Your task to perform on an android device: stop showing notifications on the lock screen Image 0: 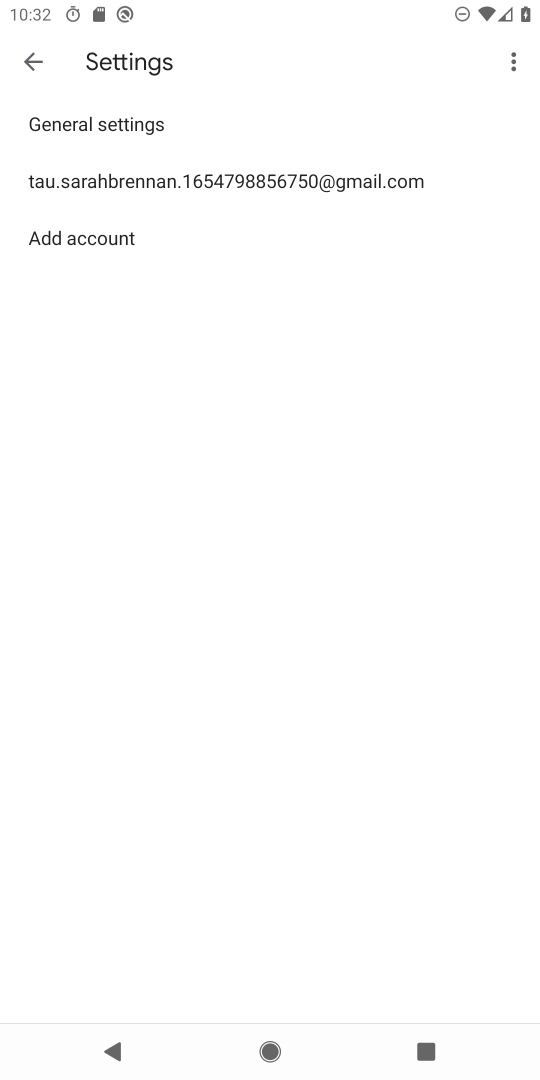
Step 0: press home button
Your task to perform on an android device: stop showing notifications on the lock screen Image 1: 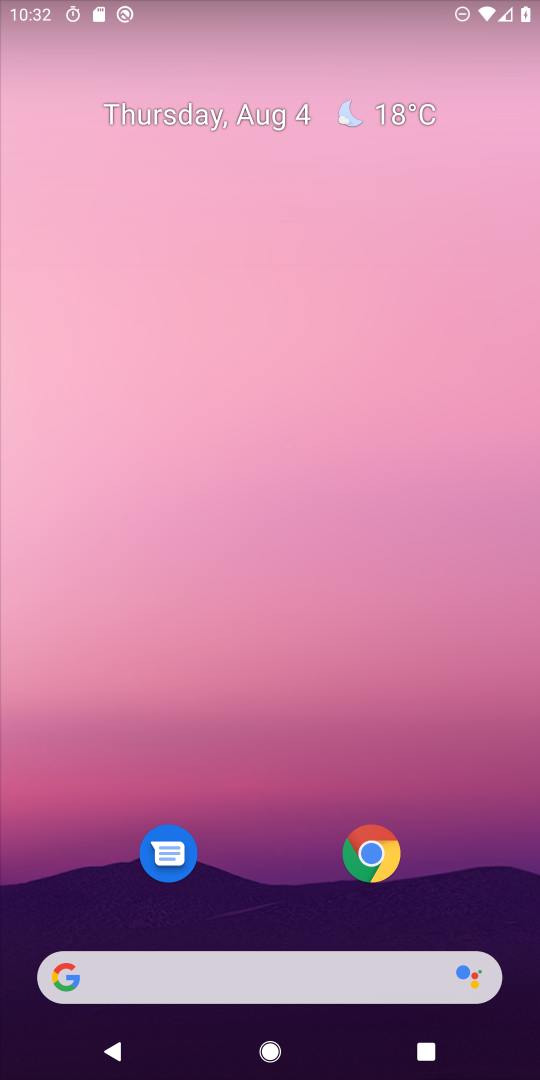
Step 1: drag from (269, 890) to (269, 91)
Your task to perform on an android device: stop showing notifications on the lock screen Image 2: 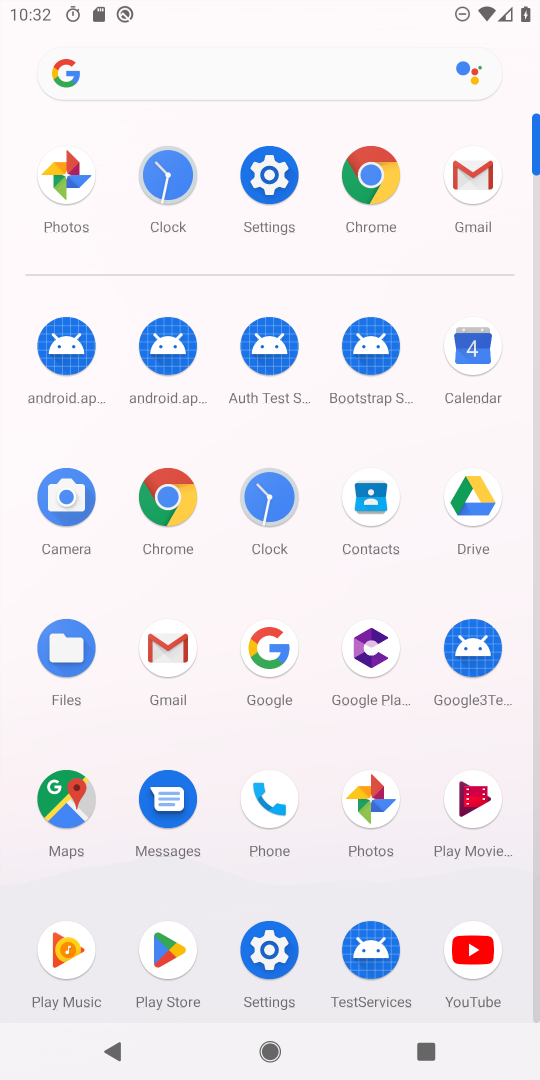
Step 2: click (271, 968)
Your task to perform on an android device: stop showing notifications on the lock screen Image 3: 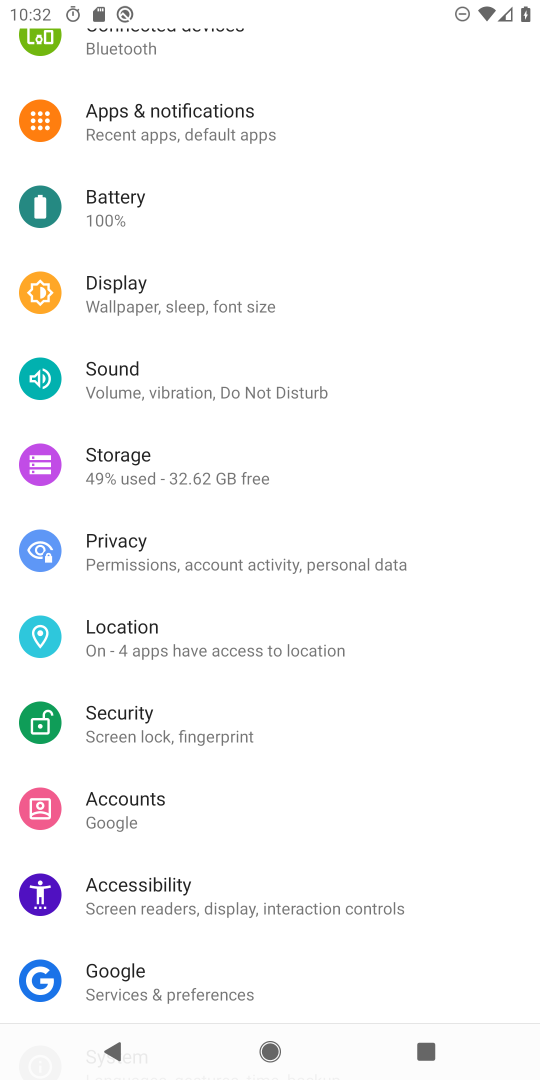
Step 3: click (222, 128)
Your task to perform on an android device: stop showing notifications on the lock screen Image 4: 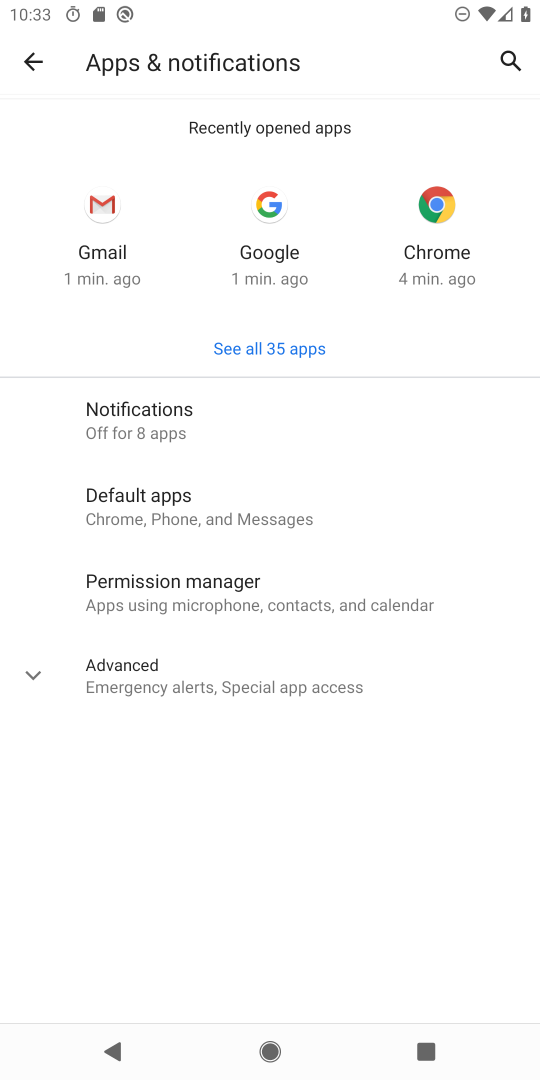
Step 4: click (192, 428)
Your task to perform on an android device: stop showing notifications on the lock screen Image 5: 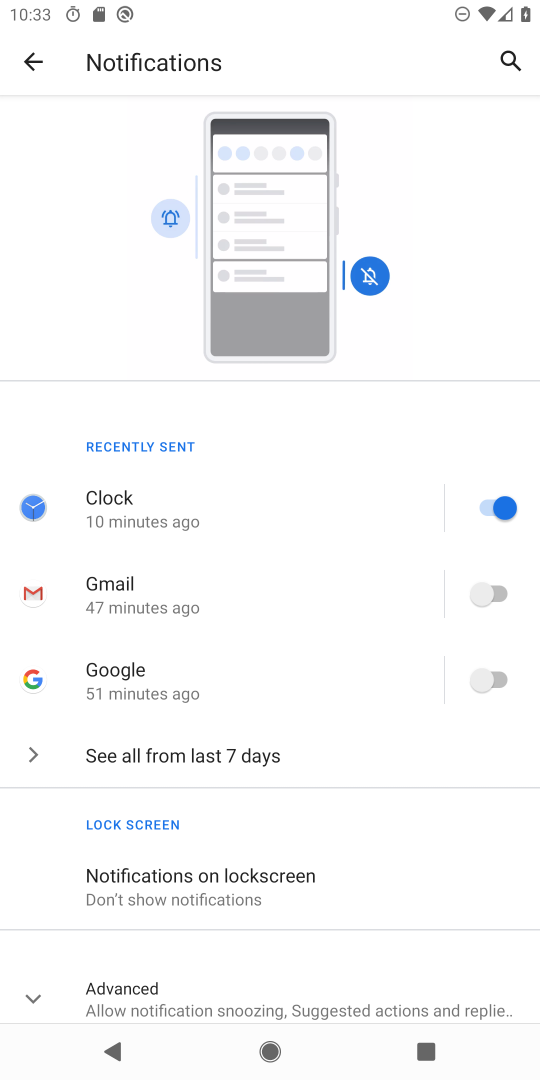
Step 5: click (207, 891)
Your task to perform on an android device: stop showing notifications on the lock screen Image 6: 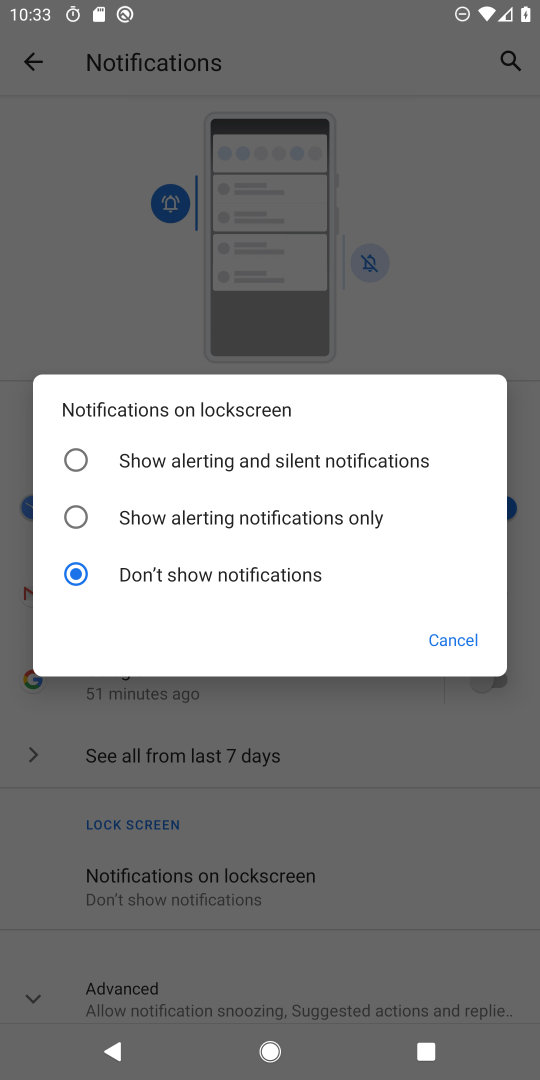
Step 6: task complete